Your task to perform on an android device: Go to battery settings Image 0: 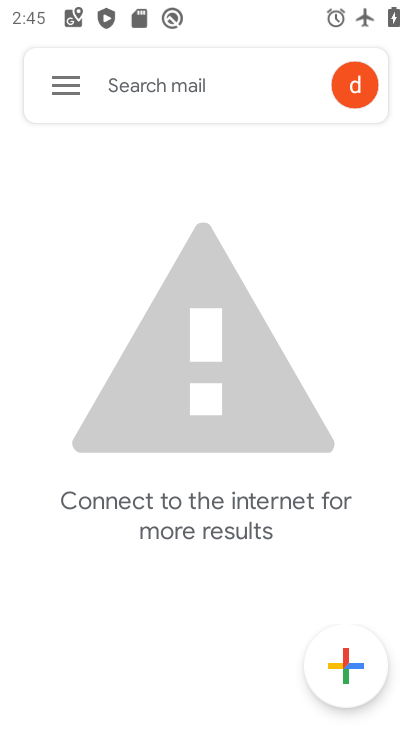
Step 0: press home button
Your task to perform on an android device: Go to battery settings Image 1: 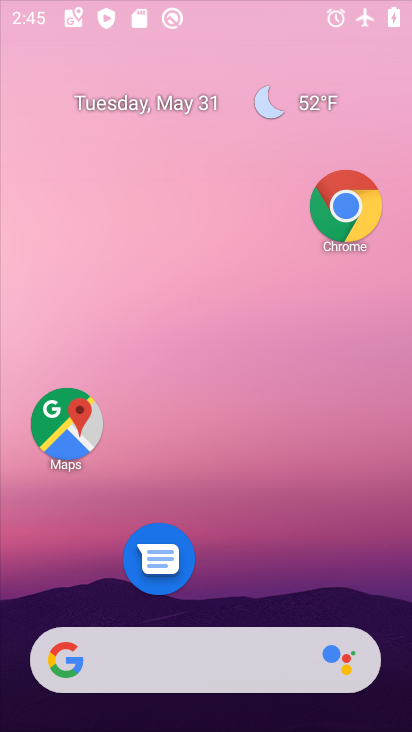
Step 1: drag from (281, 592) to (269, 108)
Your task to perform on an android device: Go to battery settings Image 2: 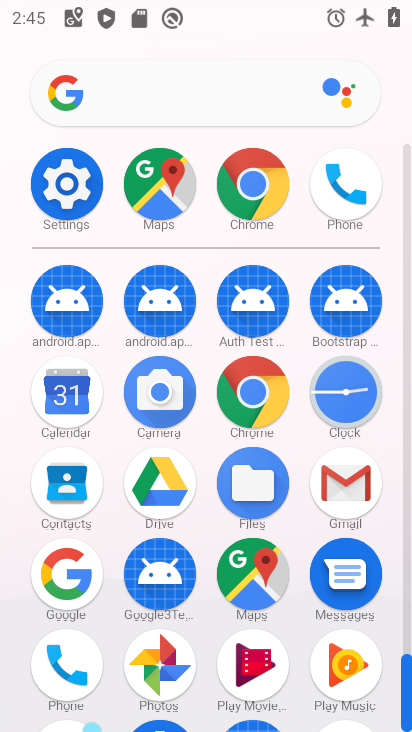
Step 2: click (74, 192)
Your task to perform on an android device: Go to battery settings Image 3: 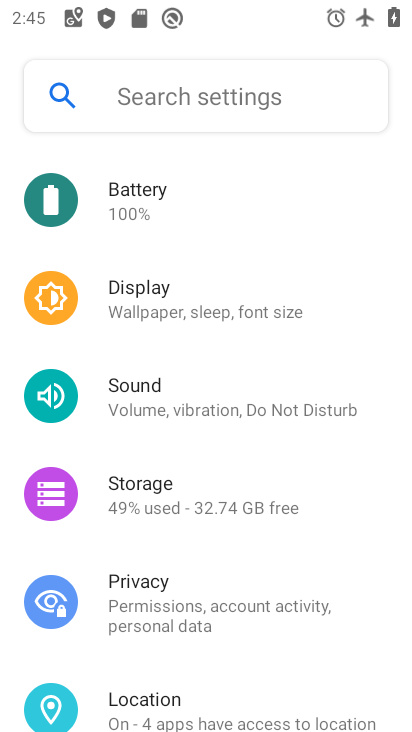
Step 3: click (178, 201)
Your task to perform on an android device: Go to battery settings Image 4: 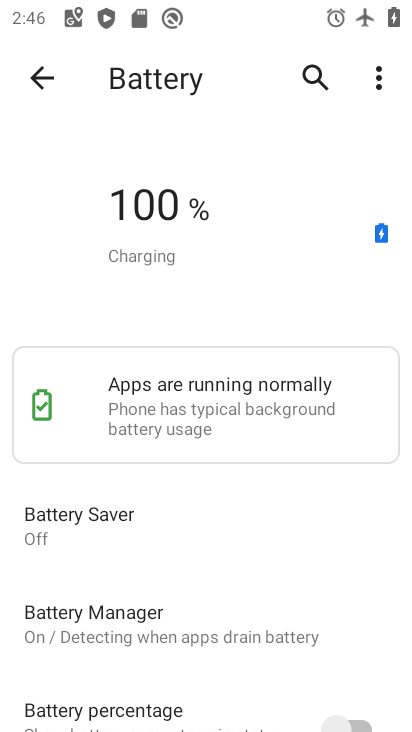
Step 4: task complete